Your task to perform on an android device: Is it going to rain tomorrow? Image 0: 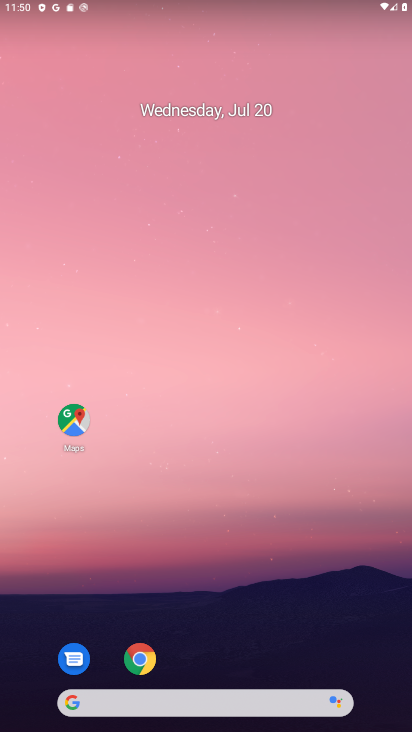
Step 0: click (208, 698)
Your task to perform on an android device: Is it going to rain tomorrow? Image 1: 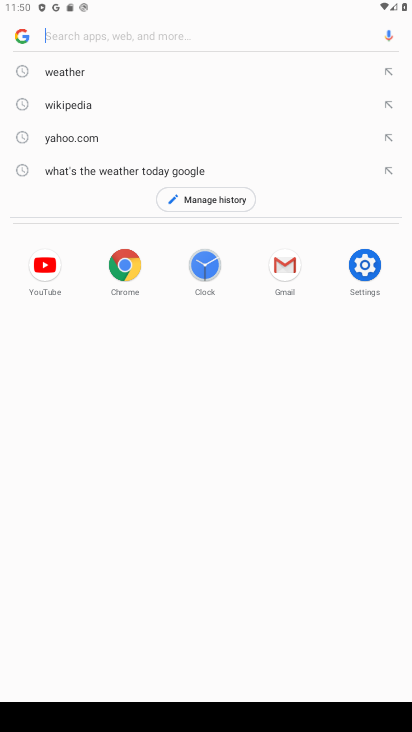
Step 1: click (87, 81)
Your task to perform on an android device: Is it going to rain tomorrow? Image 2: 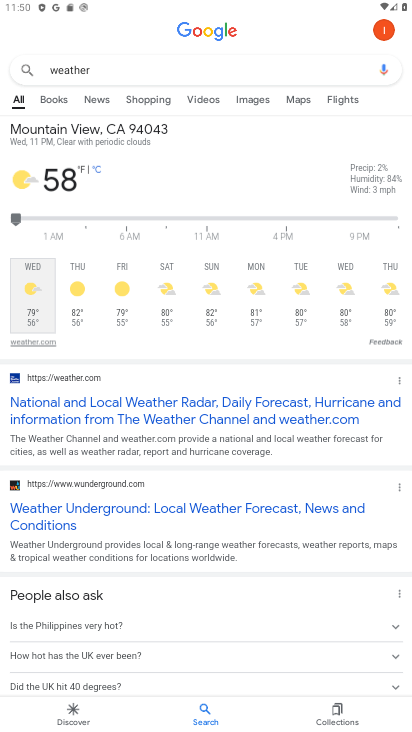
Step 2: click (65, 298)
Your task to perform on an android device: Is it going to rain tomorrow? Image 3: 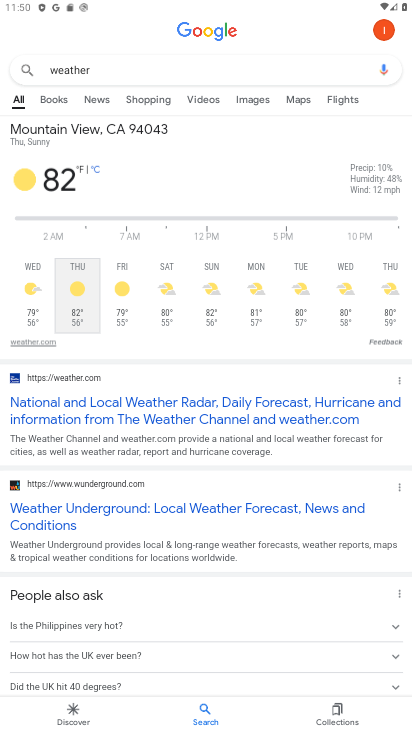
Step 3: task complete